Your task to perform on an android device: visit the assistant section in the google photos Image 0: 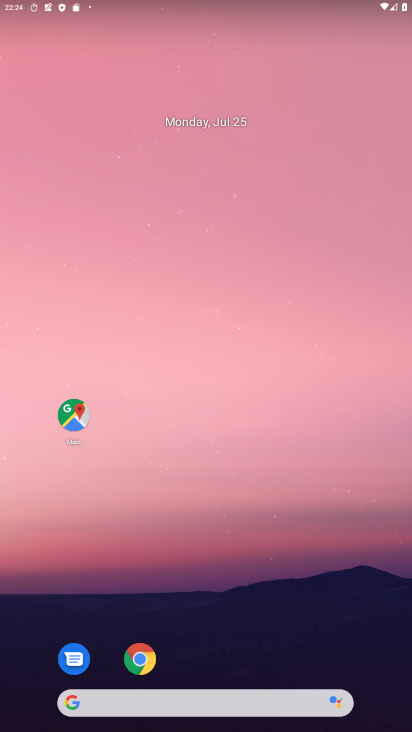
Step 0: drag from (230, 647) to (238, 236)
Your task to perform on an android device: visit the assistant section in the google photos Image 1: 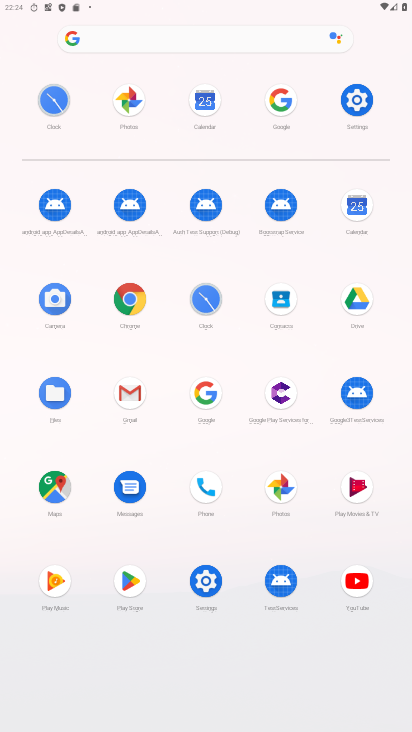
Step 1: click (133, 115)
Your task to perform on an android device: visit the assistant section in the google photos Image 2: 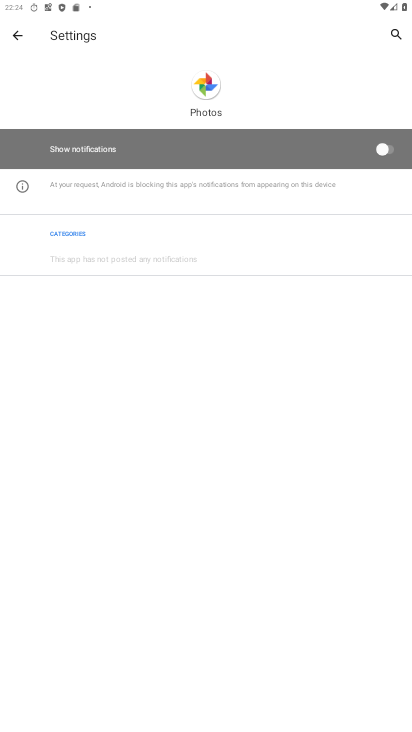
Step 2: click (14, 26)
Your task to perform on an android device: visit the assistant section in the google photos Image 3: 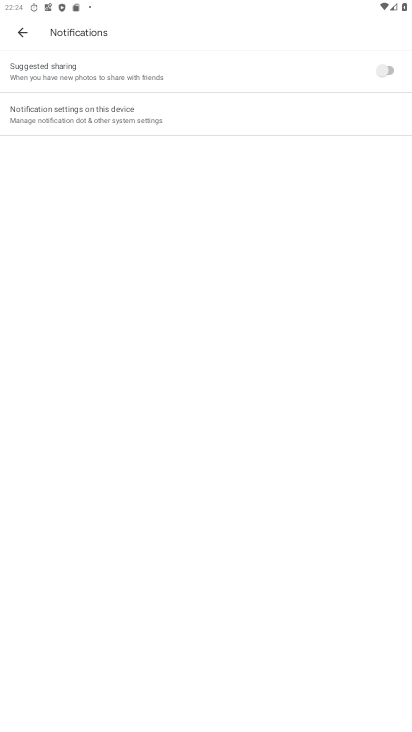
Step 3: click (15, 30)
Your task to perform on an android device: visit the assistant section in the google photos Image 4: 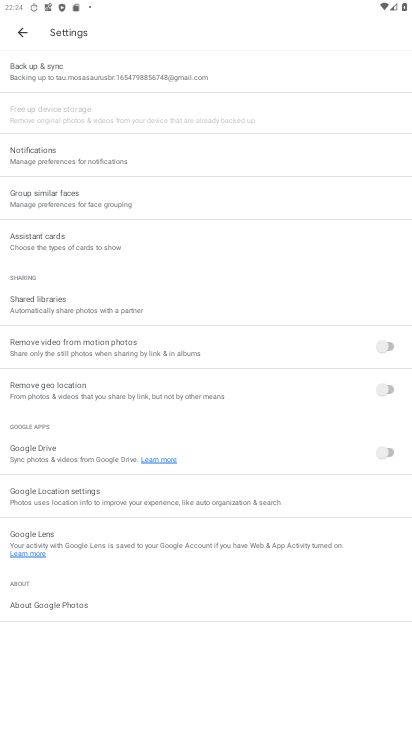
Step 4: click (26, 42)
Your task to perform on an android device: visit the assistant section in the google photos Image 5: 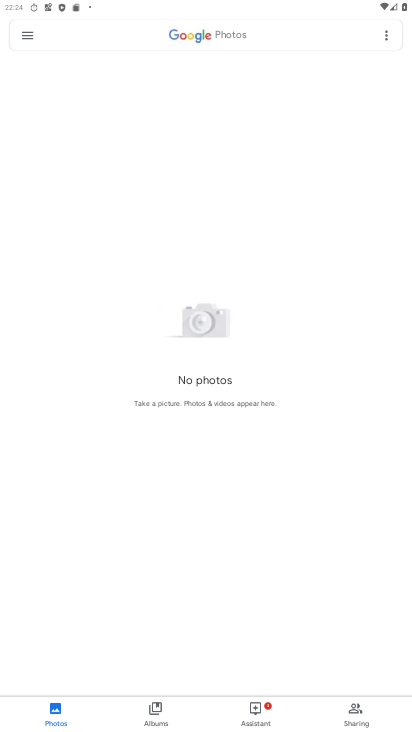
Step 5: click (243, 699)
Your task to perform on an android device: visit the assistant section in the google photos Image 6: 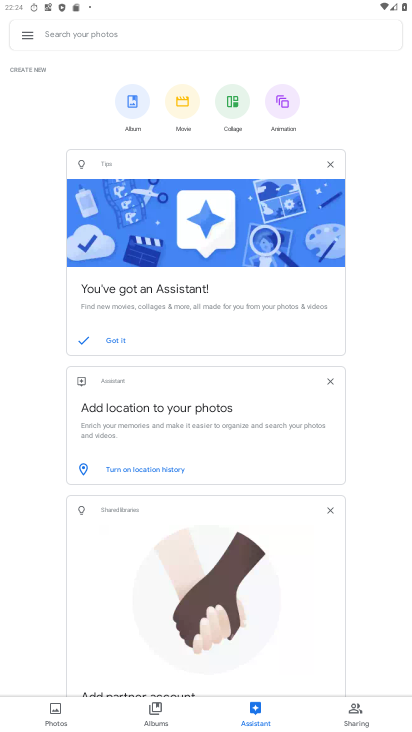
Step 6: task complete